Your task to perform on an android device: check storage Image 0: 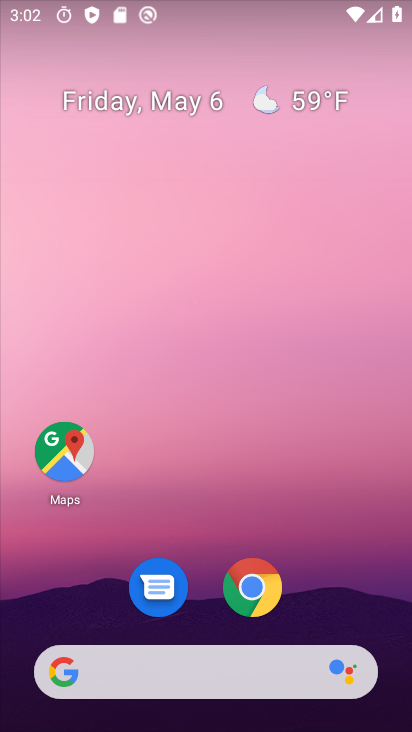
Step 0: drag from (259, 469) to (311, 10)
Your task to perform on an android device: check storage Image 1: 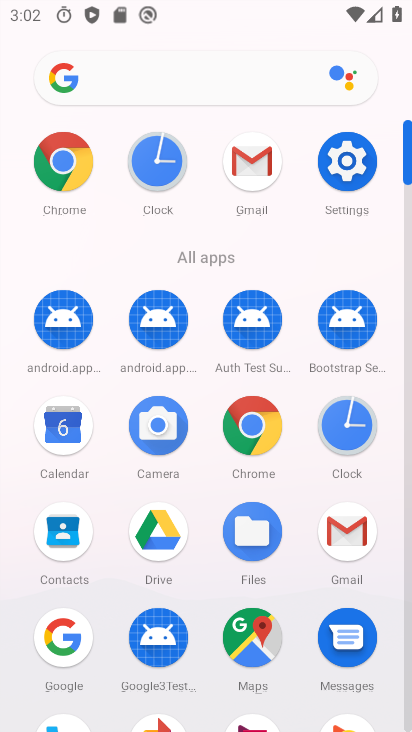
Step 1: click (343, 156)
Your task to perform on an android device: check storage Image 2: 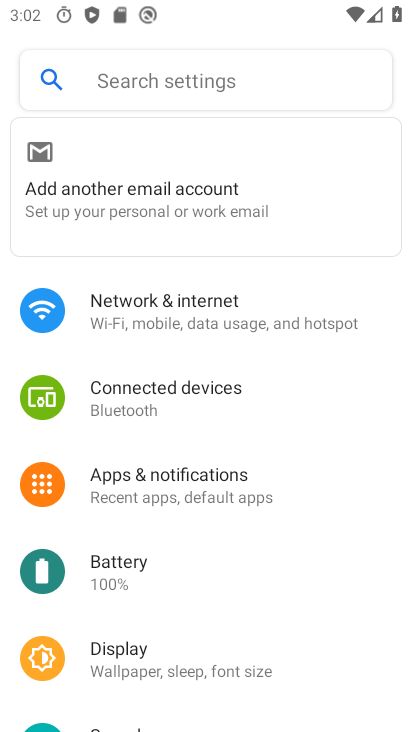
Step 2: drag from (209, 565) to (225, 185)
Your task to perform on an android device: check storage Image 3: 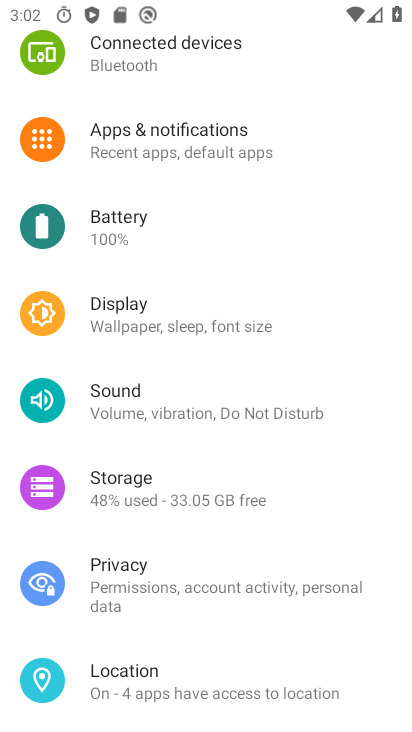
Step 3: click (202, 489)
Your task to perform on an android device: check storage Image 4: 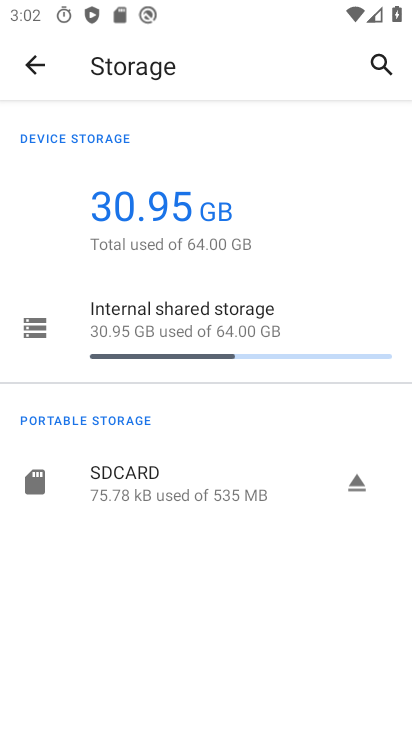
Step 4: task complete